Your task to perform on an android device: turn off airplane mode Image 0: 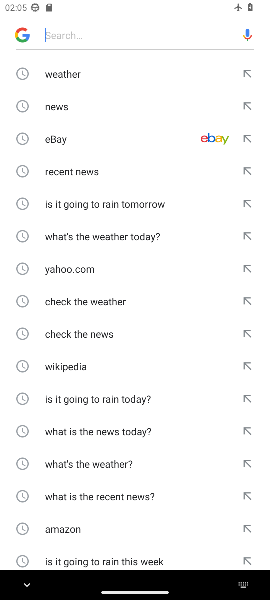
Step 0: press home button
Your task to perform on an android device: turn off airplane mode Image 1: 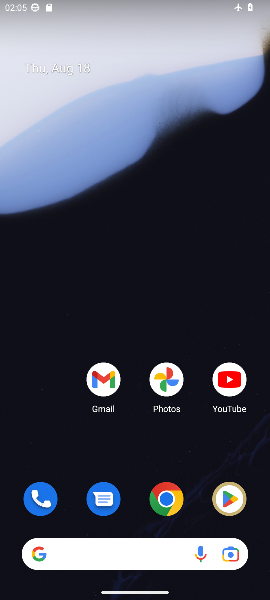
Step 1: drag from (124, 478) to (67, 15)
Your task to perform on an android device: turn off airplane mode Image 2: 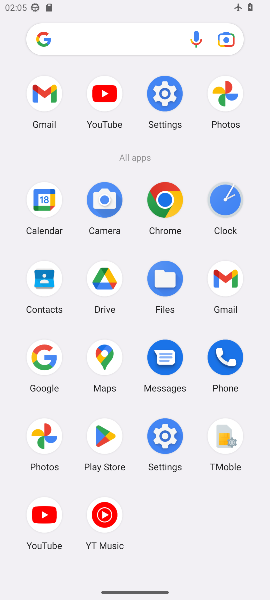
Step 2: click (164, 92)
Your task to perform on an android device: turn off airplane mode Image 3: 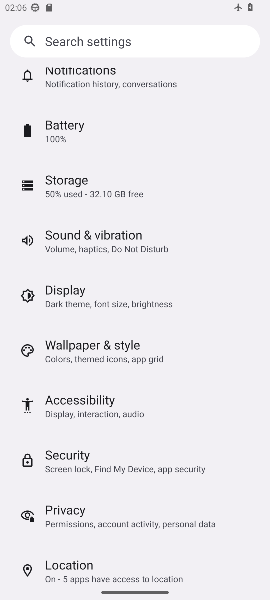
Step 3: drag from (147, 136) to (182, 393)
Your task to perform on an android device: turn off airplane mode Image 4: 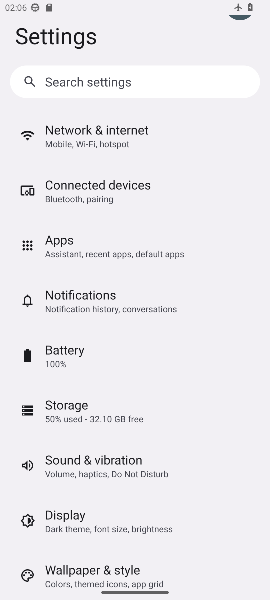
Step 4: click (98, 129)
Your task to perform on an android device: turn off airplane mode Image 5: 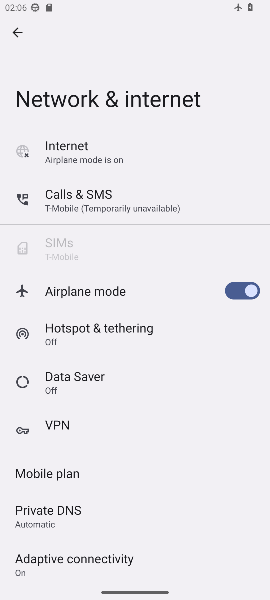
Step 5: click (245, 286)
Your task to perform on an android device: turn off airplane mode Image 6: 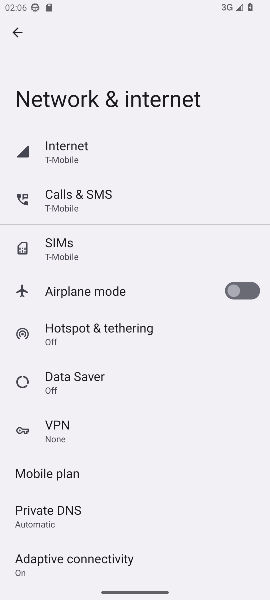
Step 6: task complete